Your task to perform on an android device: choose inbox layout in the gmail app Image 0: 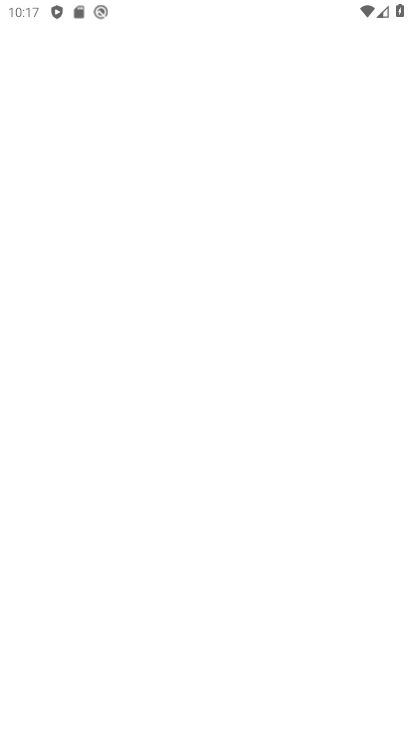
Step 0: click (127, 610)
Your task to perform on an android device: choose inbox layout in the gmail app Image 1: 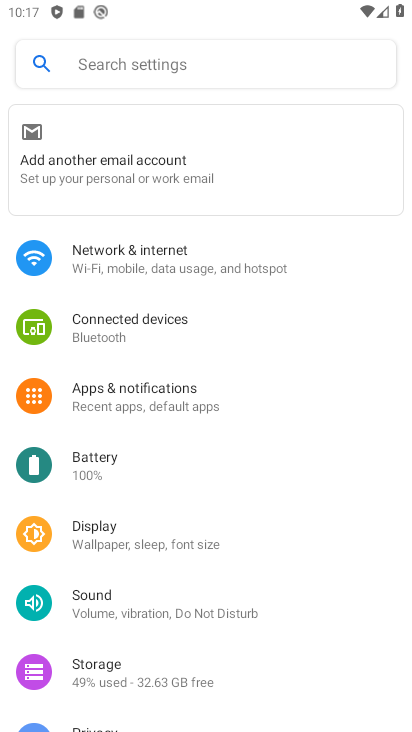
Step 1: press home button
Your task to perform on an android device: choose inbox layout in the gmail app Image 2: 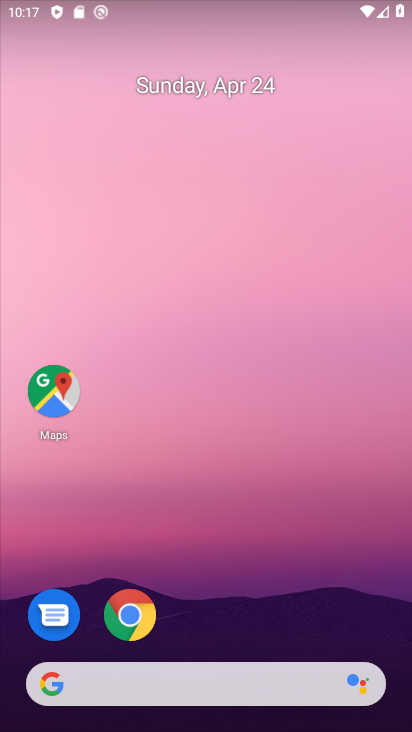
Step 2: drag from (213, 640) to (251, 241)
Your task to perform on an android device: choose inbox layout in the gmail app Image 3: 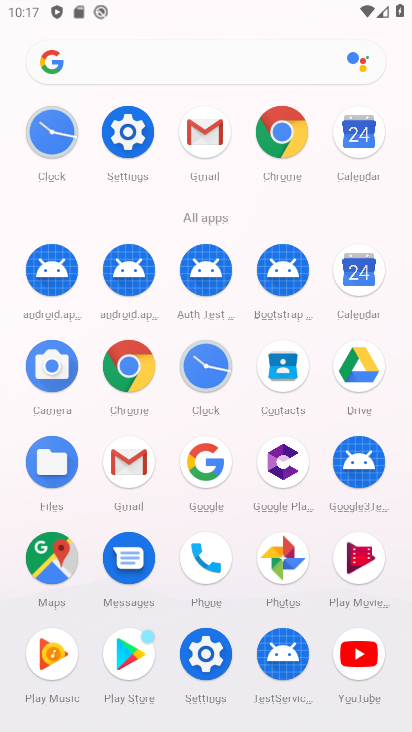
Step 3: click (123, 457)
Your task to perform on an android device: choose inbox layout in the gmail app Image 4: 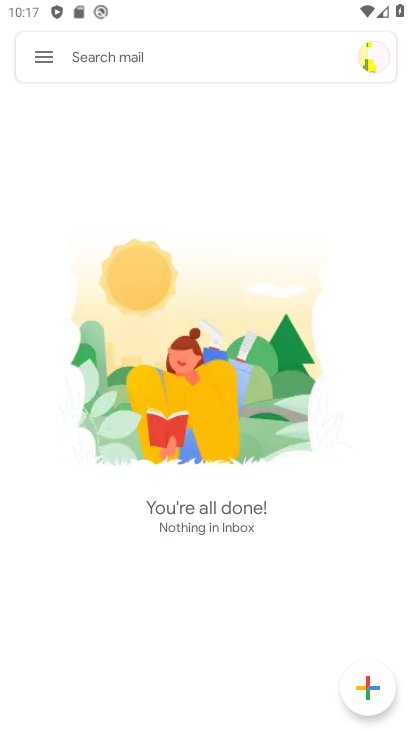
Step 4: click (50, 51)
Your task to perform on an android device: choose inbox layout in the gmail app Image 5: 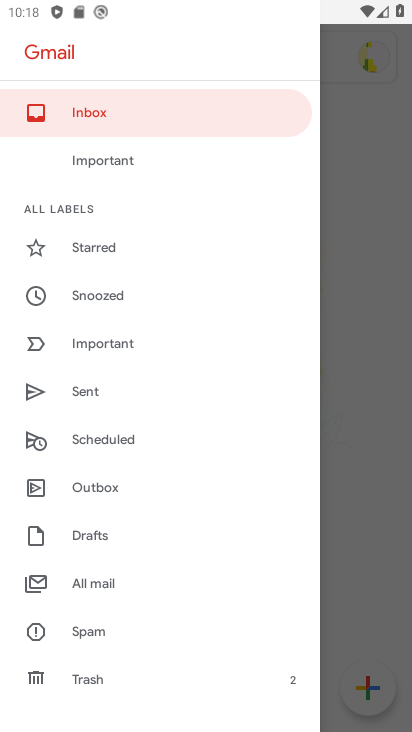
Step 5: drag from (113, 648) to (120, 197)
Your task to perform on an android device: choose inbox layout in the gmail app Image 6: 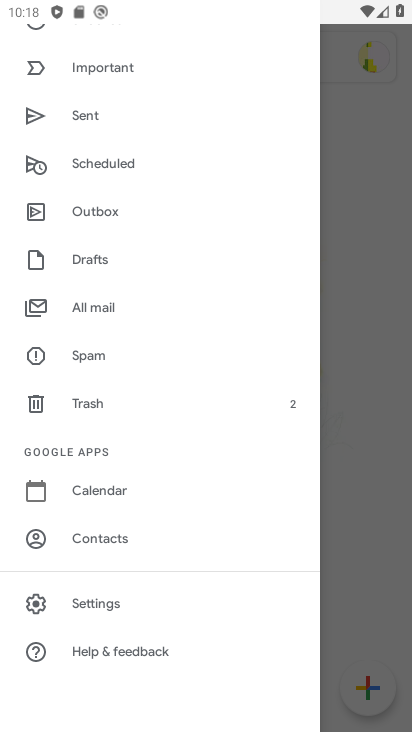
Step 6: click (126, 602)
Your task to perform on an android device: choose inbox layout in the gmail app Image 7: 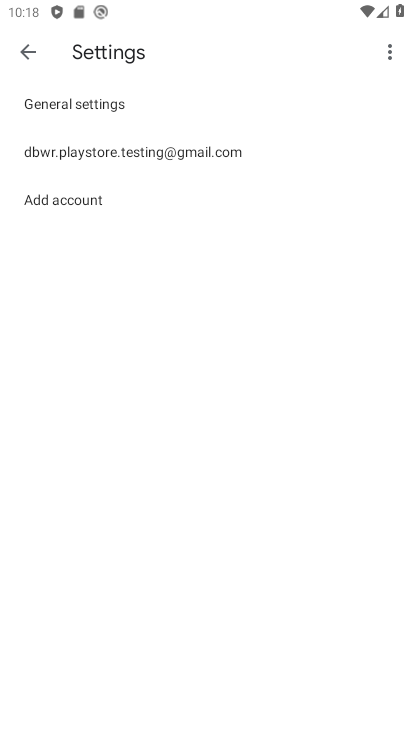
Step 7: click (255, 151)
Your task to perform on an android device: choose inbox layout in the gmail app Image 8: 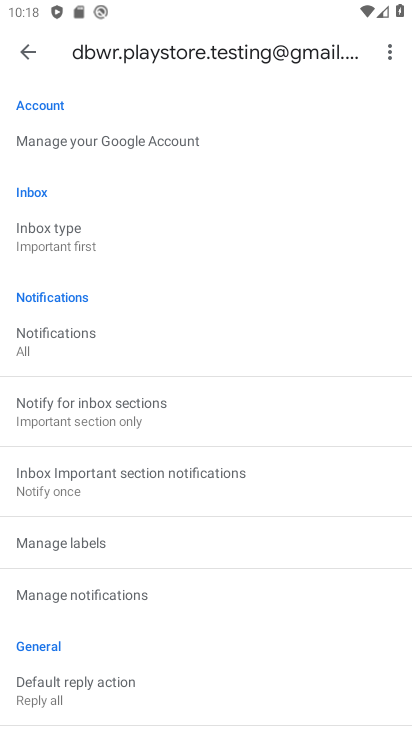
Step 8: click (96, 235)
Your task to perform on an android device: choose inbox layout in the gmail app Image 9: 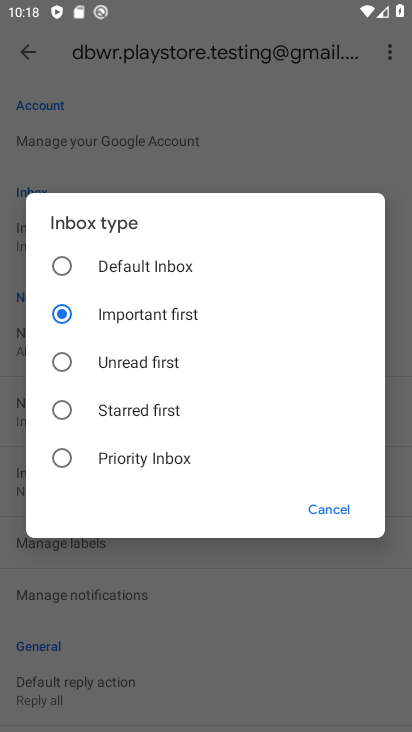
Step 9: click (61, 262)
Your task to perform on an android device: choose inbox layout in the gmail app Image 10: 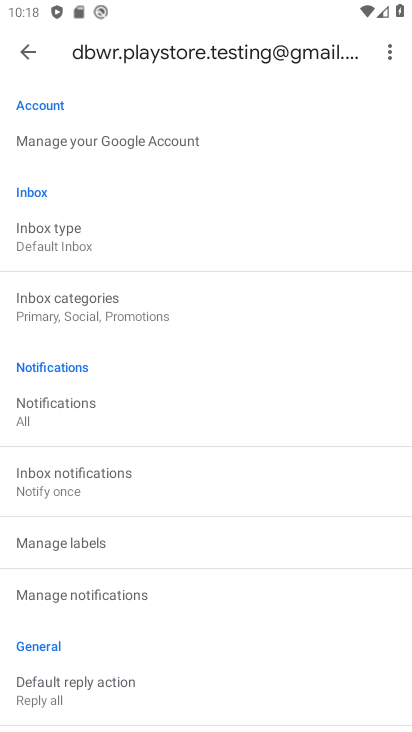
Step 10: task complete